Your task to perform on an android device: change alarm snooze length Image 0: 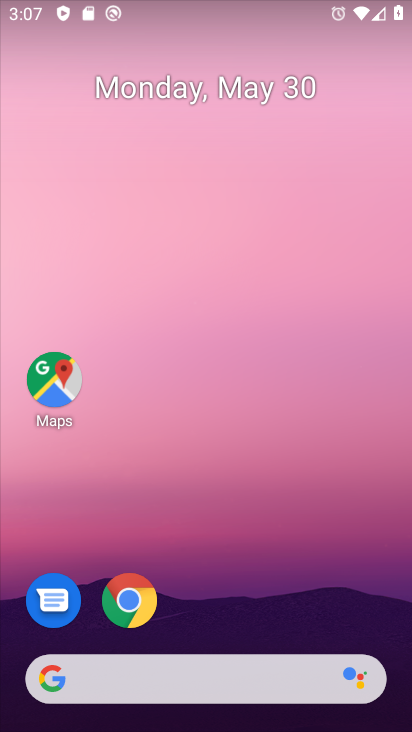
Step 0: drag from (219, 725) to (233, 64)
Your task to perform on an android device: change alarm snooze length Image 1: 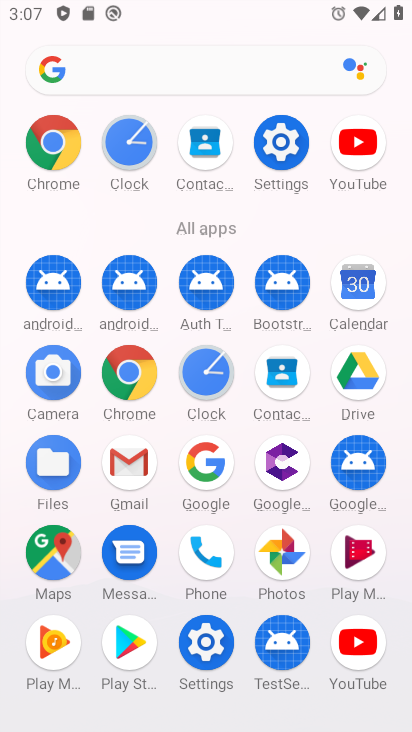
Step 1: click (211, 370)
Your task to perform on an android device: change alarm snooze length Image 2: 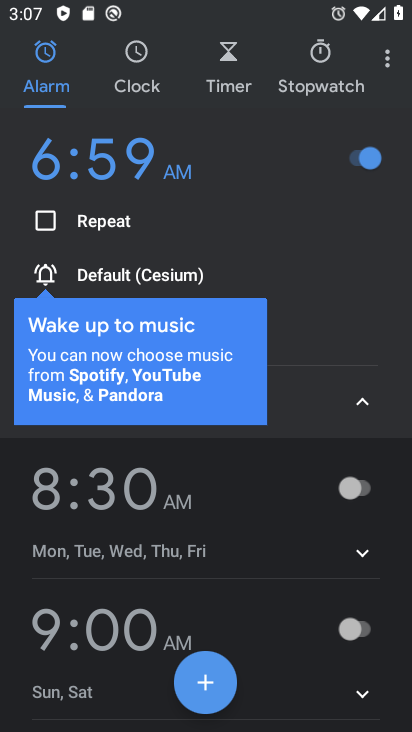
Step 2: click (389, 65)
Your task to perform on an android device: change alarm snooze length Image 3: 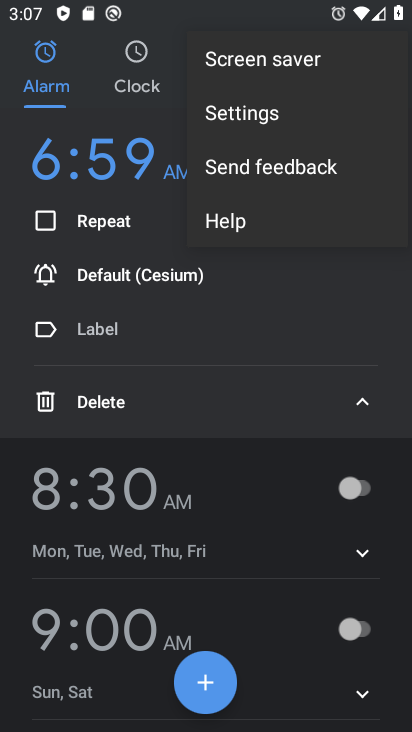
Step 3: click (213, 117)
Your task to perform on an android device: change alarm snooze length Image 4: 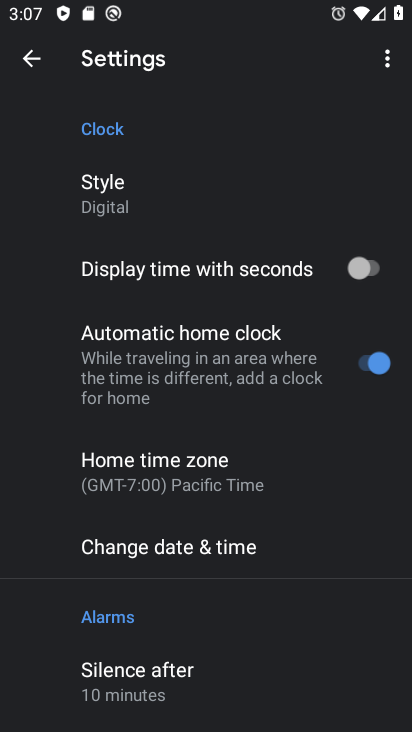
Step 4: drag from (197, 699) to (205, 287)
Your task to perform on an android device: change alarm snooze length Image 5: 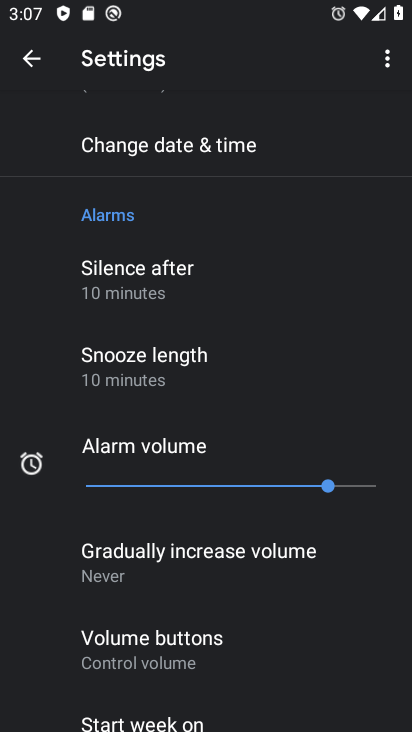
Step 5: click (154, 367)
Your task to perform on an android device: change alarm snooze length Image 6: 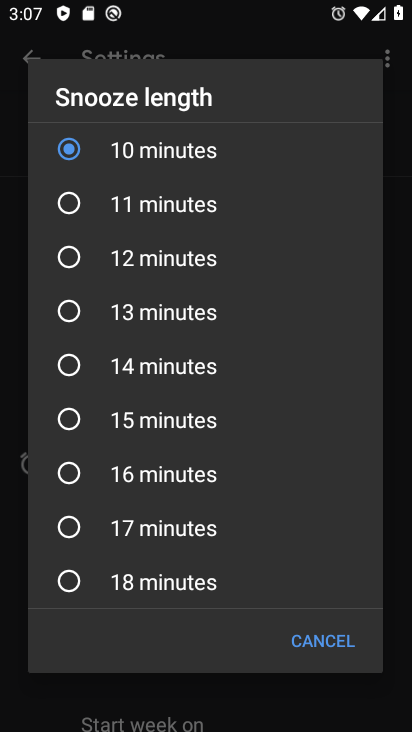
Step 6: click (66, 523)
Your task to perform on an android device: change alarm snooze length Image 7: 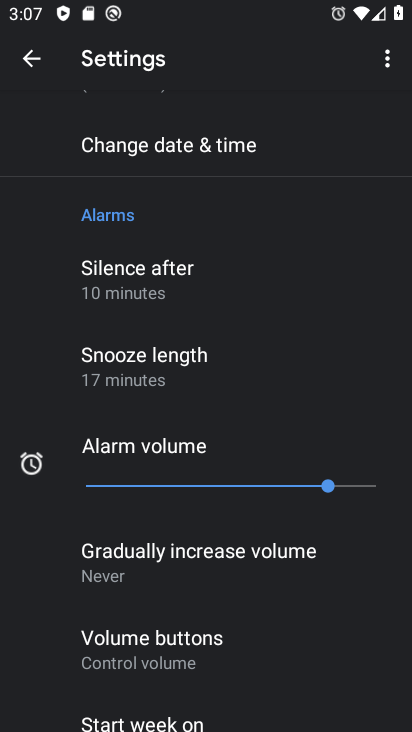
Step 7: task complete